Your task to perform on an android device: turn on translation in the chrome app Image 0: 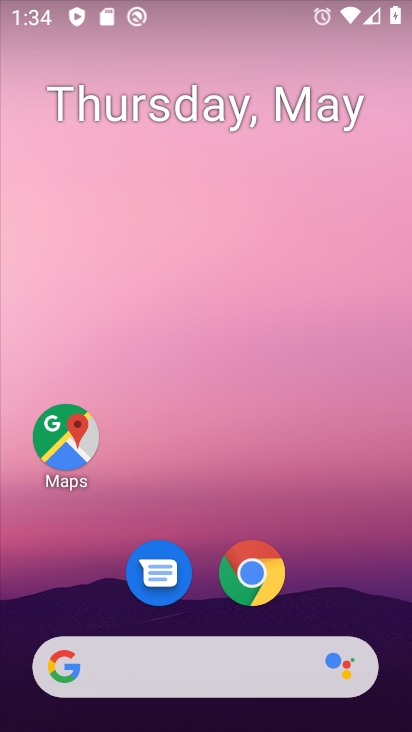
Step 0: click (254, 575)
Your task to perform on an android device: turn on translation in the chrome app Image 1: 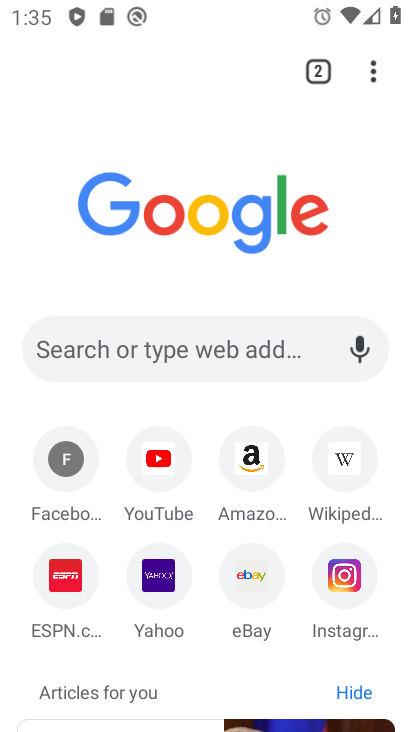
Step 1: click (367, 67)
Your task to perform on an android device: turn on translation in the chrome app Image 2: 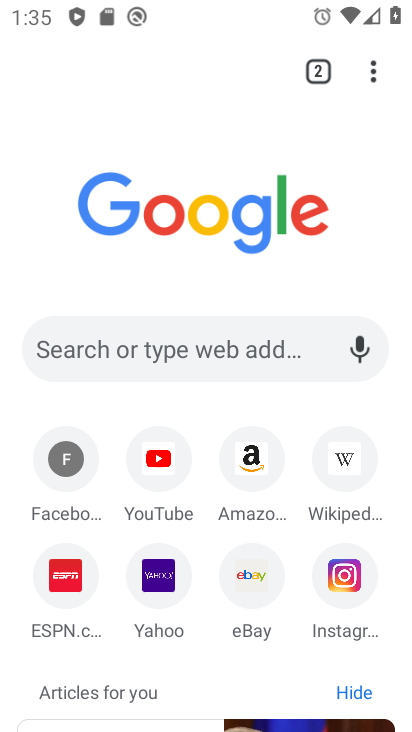
Step 2: click (368, 73)
Your task to perform on an android device: turn on translation in the chrome app Image 3: 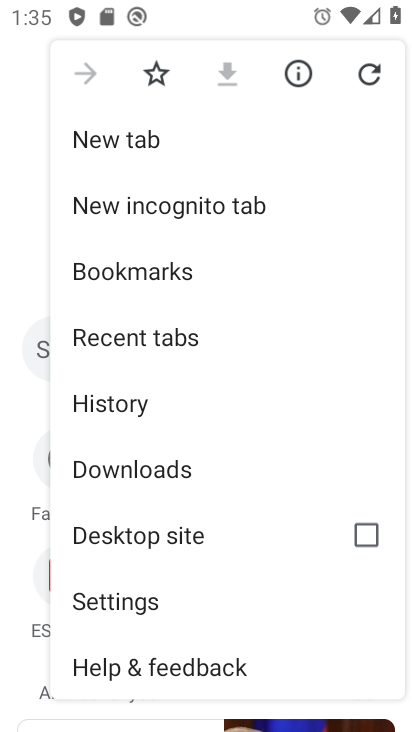
Step 3: click (123, 596)
Your task to perform on an android device: turn on translation in the chrome app Image 4: 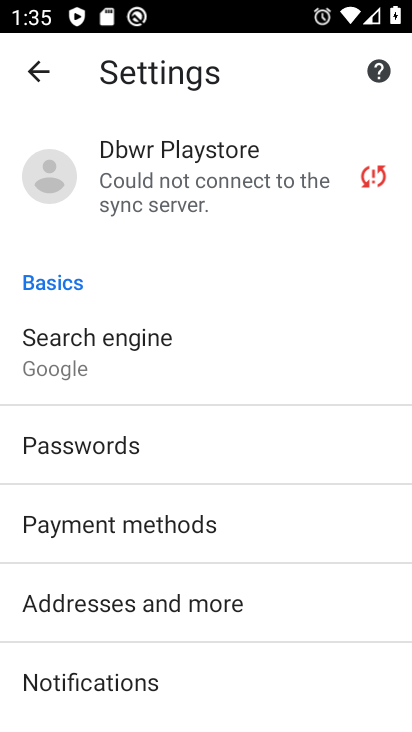
Step 4: drag from (273, 596) to (283, 217)
Your task to perform on an android device: turn on translation in the chrome app Image 5: 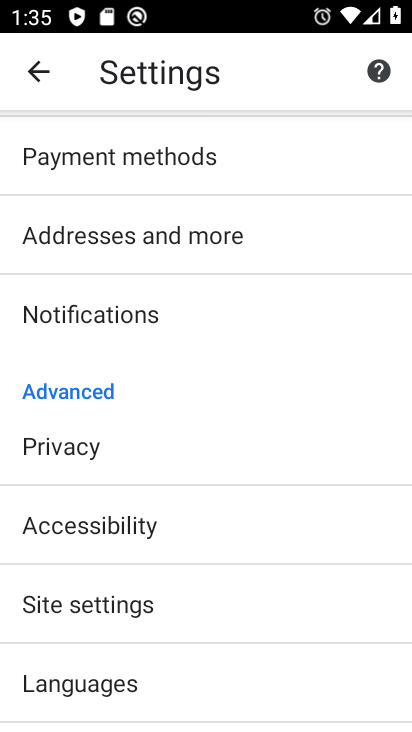
Step 5: drag from (182, 682) to (199, 342)
Your task to perform on an android device: turn on translation in the chrome app Image 6: 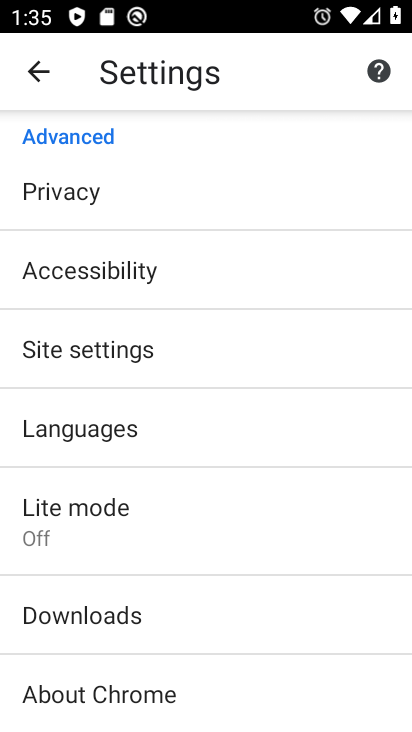
Step 6: click (96, 425)
Your task to perform on an android device: turn on translation in the chrome app Image 7: 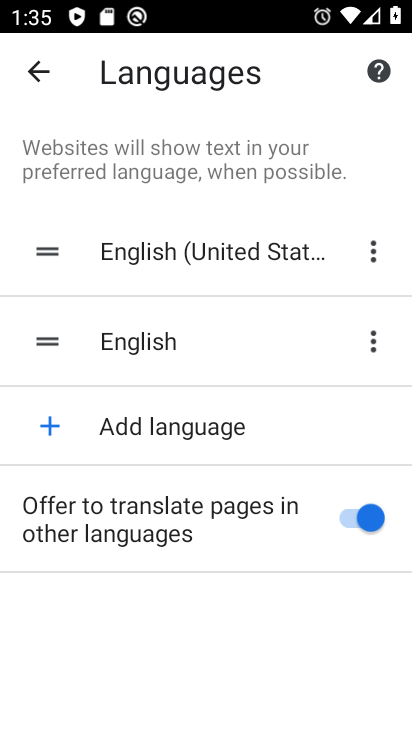
Step 7: task complete